Your task to perform on an android device: Open Google Maps Image 0: 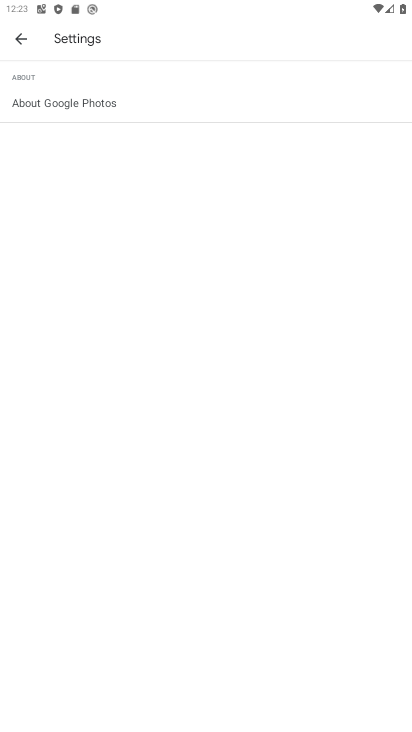
Step 0: press home button
Your task to perform on an android device: Open Google Maps Image 1: 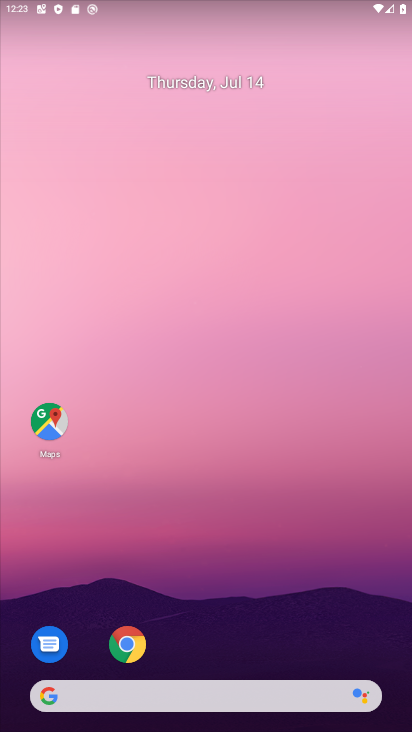
Step 1: drag from (314, 691) to (260, 111)
Your task to perform on an android device: Open Google Maps Image 2: 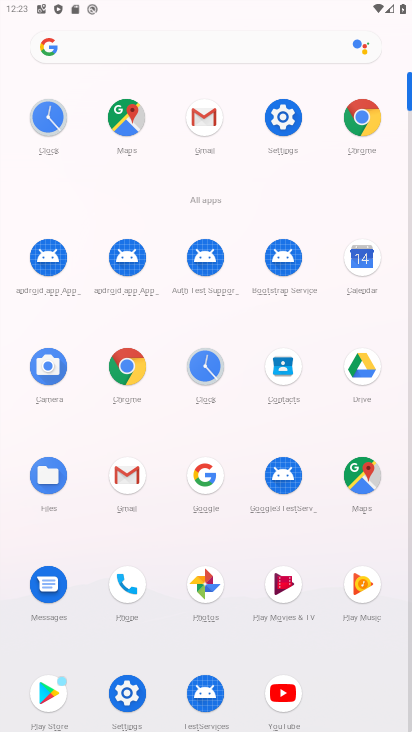
Step 2: click (351, 475)
Your task to perform on an android device: Open Google Maps Image 3: 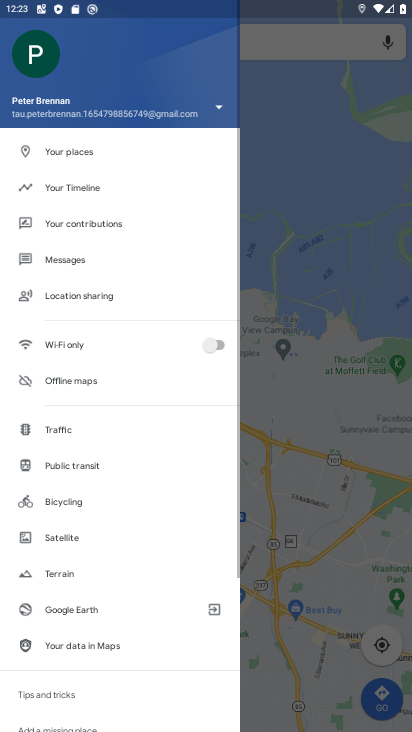
Step 3: click (322, 208)
Your task to perform on an android device: Open Google Maps Image 4: 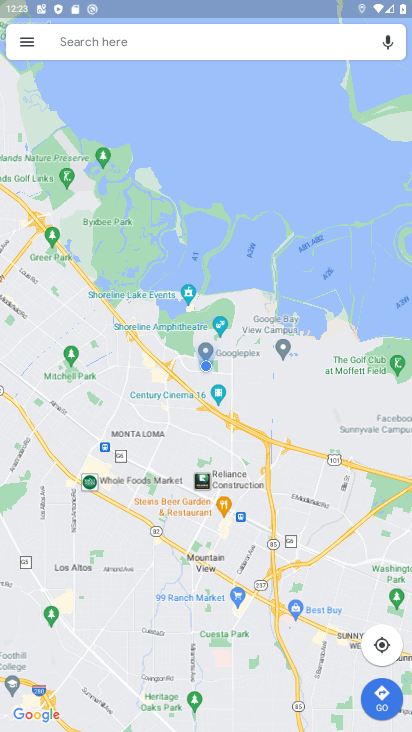
Step 4: task complete